Your task to perform on an android device: turn on priority inbox in the gmail app Image 0: 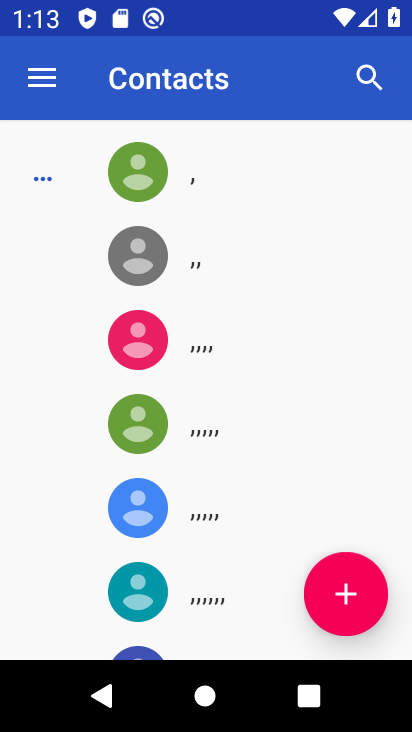
Step 0: press home button
Your task to perform on an android device: turn on priority inbox in the gmail app Image 1: 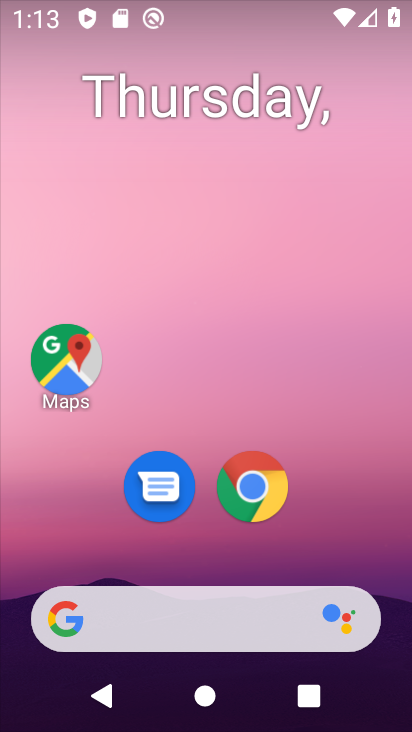
Step 1: drag from (398, 609) to (350, 118)
Your task to perform on an android device: turn on priority inbox in the gmail app Image 2: 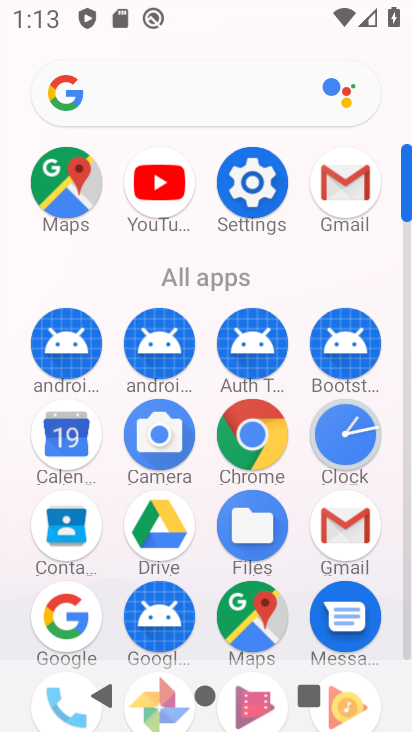
Step 2: click (348, 180)
Your task to perform on an android device: turn on priority inbox in the gmail app Image 3: 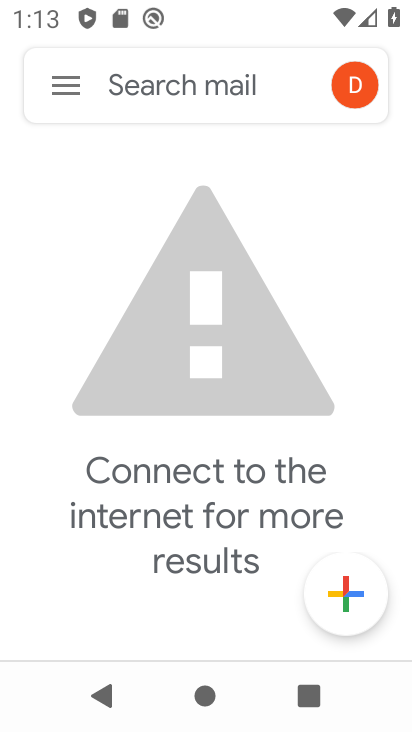
Step 3: click (64, 89)
Your task to perform on an android device: turn on priority inbox in the gmail app Image 4: 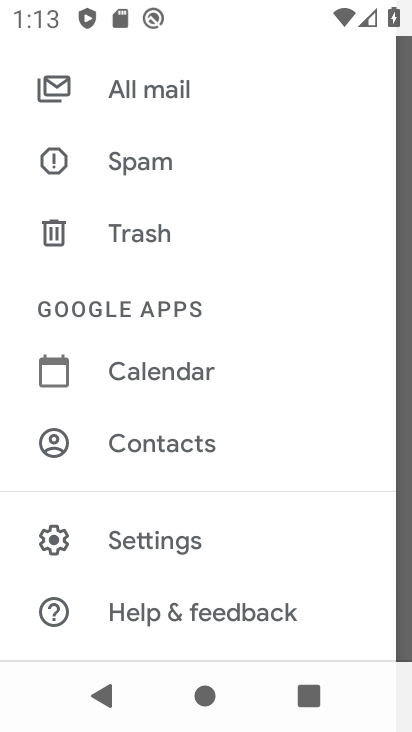
Step 4: click (147, 535)
Your task to perform on an android device: turn on priority inbox in the gmail app Image 5: 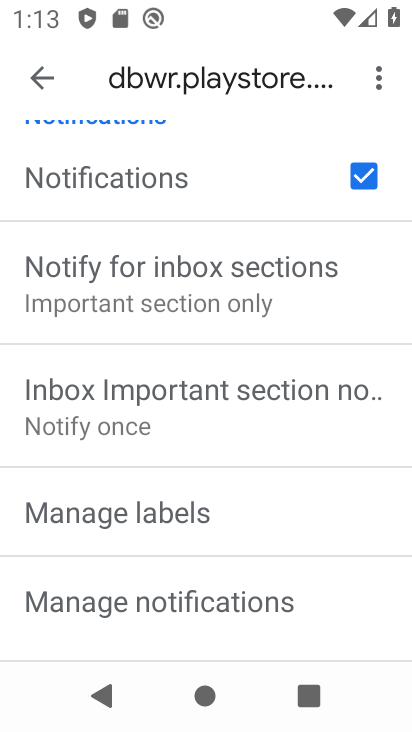
Step 5: drag from (261, 190) to (211, 727)
Your task to perform on an android device: turn on priority inbox in the gmail app Image 6: 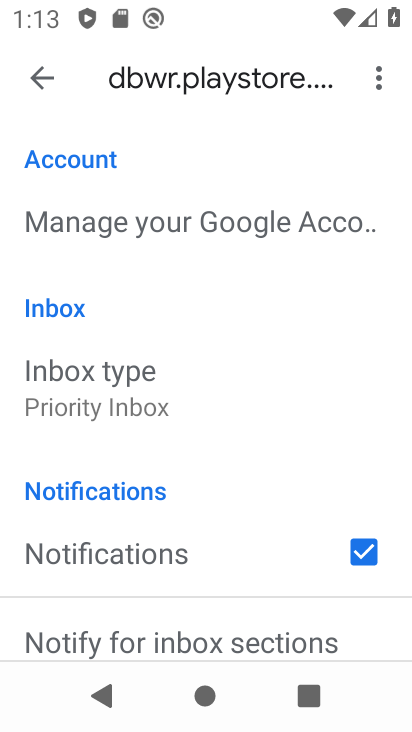
Step 6: click (147, 400)
Your task to perform on an android device: turn on priority inbox in the gmail app Image 7: 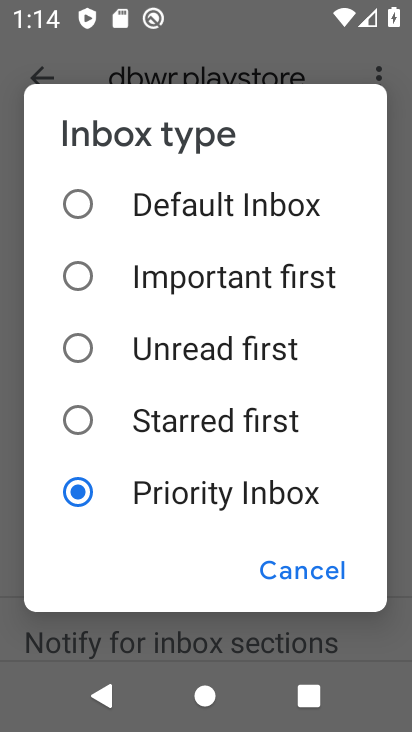
Step 7: task complete